Your task to perform on an android device: turn pop-ups off in chrome Image 0: 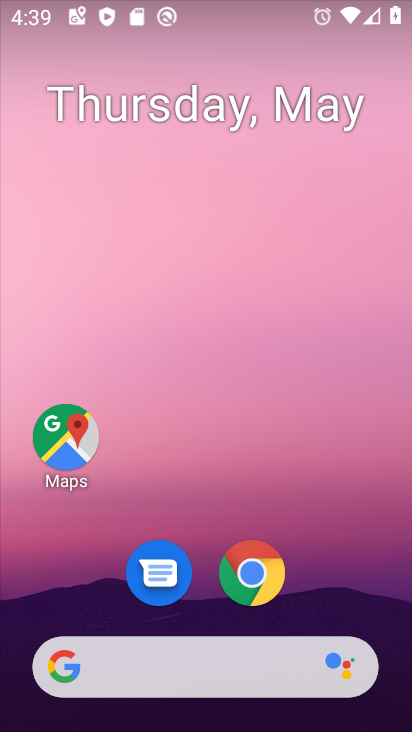
Step 0: click (254, 572)
Your task to perform on an android device: turn pop-ups off in chrome Image 1: 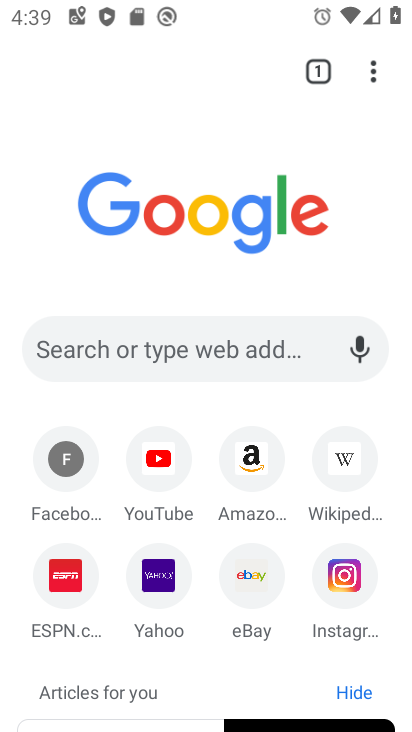
Step 1: click (374, 82)
Your task to perform on an android device: turn pop-ups off in chrome Image 2: 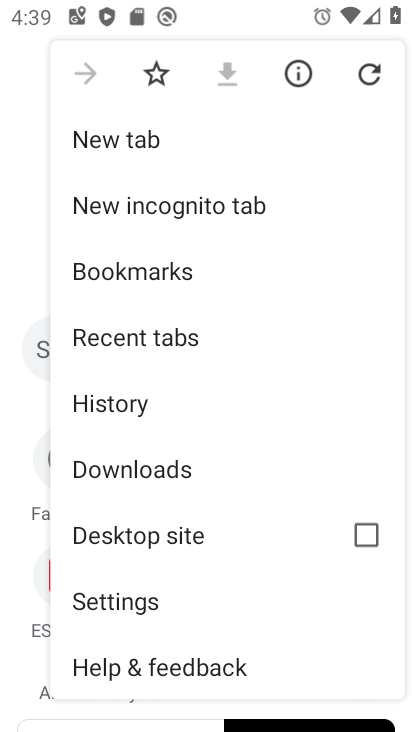
Step 2: click (153, 607)
Your task to perform on an android device: turn pop-ups off in chrome Image 3: 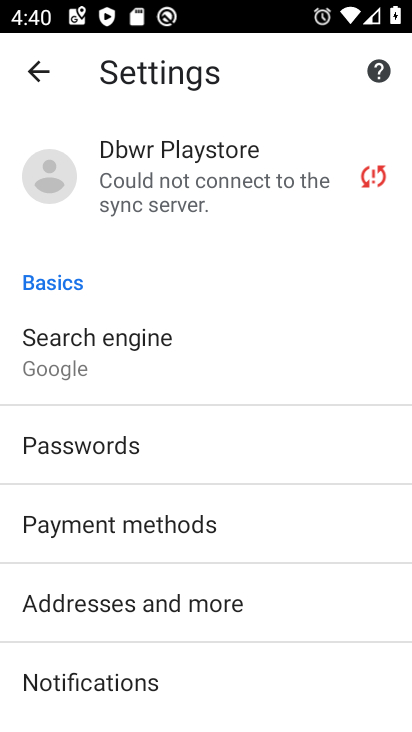
Step 3: drag from (141, 661) to (136, 350)
Your task to perform on an android device: turn pop-ups off in chrome Image 4: 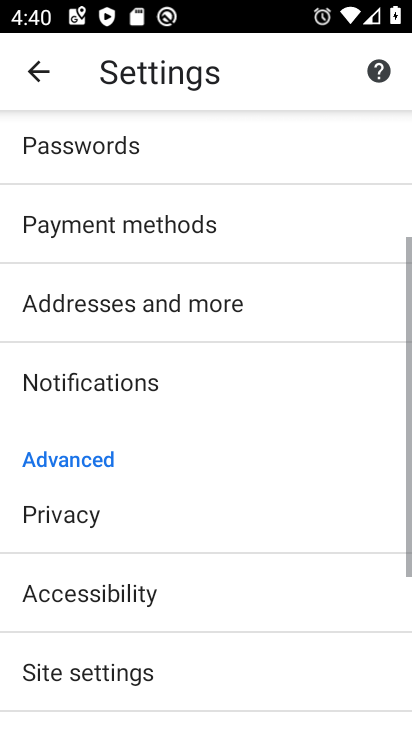
Step 4: drag from (154, 641) to (175, 399)
Your task to perform on an android device: turn pop-ups off in chrome Image 5: 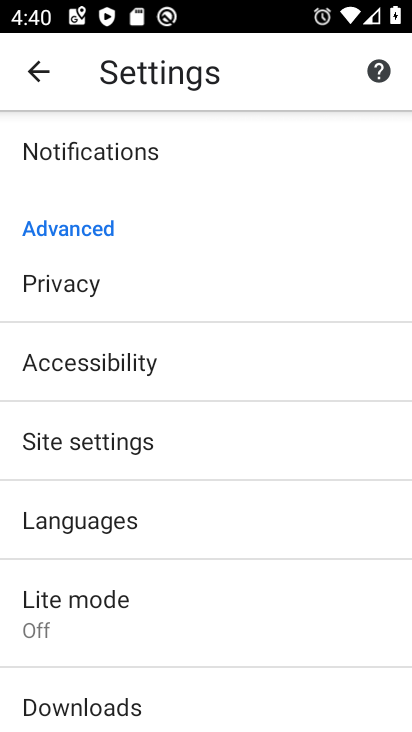
Step 5: click (108, 449)
Your task to perform on an android device: turn pop-ups off in chrome Image 6: 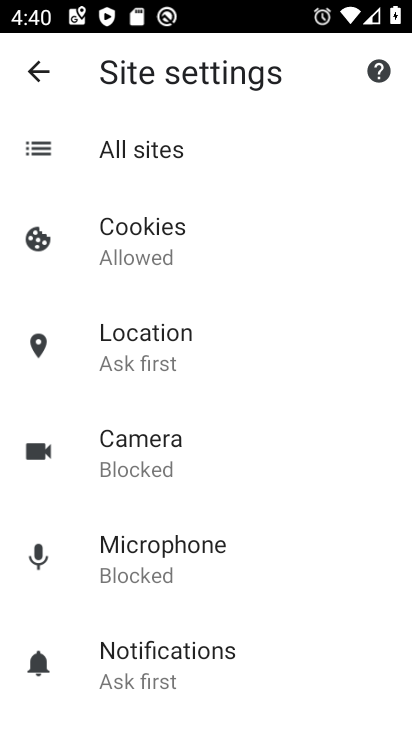
Step 6: click (245, 346)
Your task to perform on an android device: turn pop-ups off in chrome Image 7: 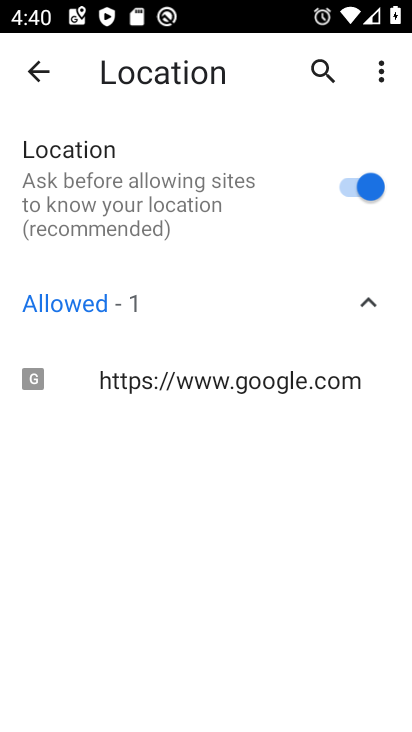
Step 7: click (42, 71)
Your task to perform on an android device: turn pop-ups off in chrome Image 8: 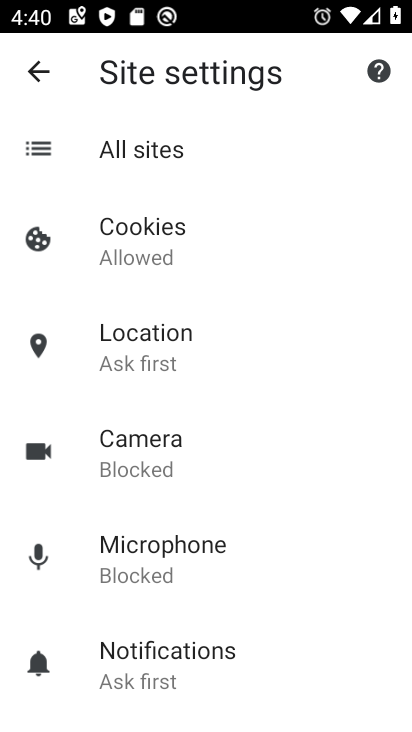
Step 8: drag from (201, 657) to (177, 229)
Your task to perform on an android device: turn pop-ups off in chrome Image 9: 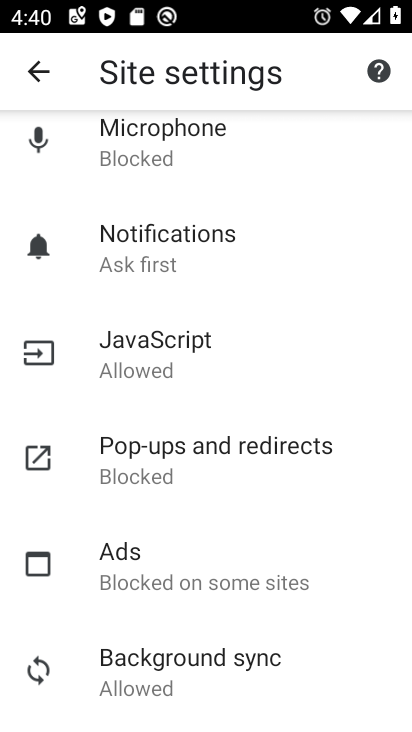
Step 9: click (175, 450)
Your task to perform on an android device: turn pop-ups off in chrome Image 10: 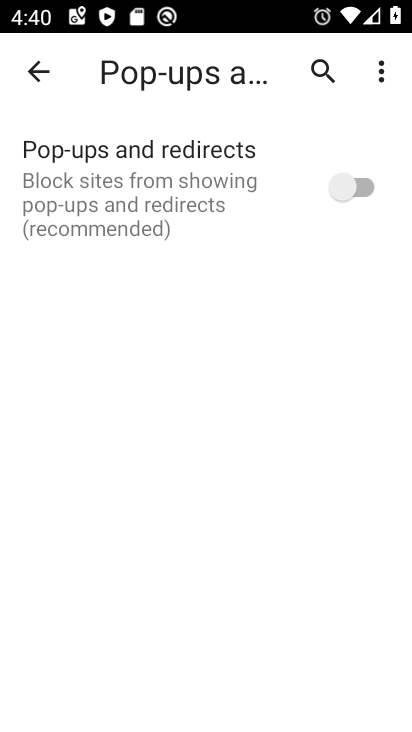
Step 10: task complete